Your task to perform on an android device: check the backup settings in the google photos Image 0: 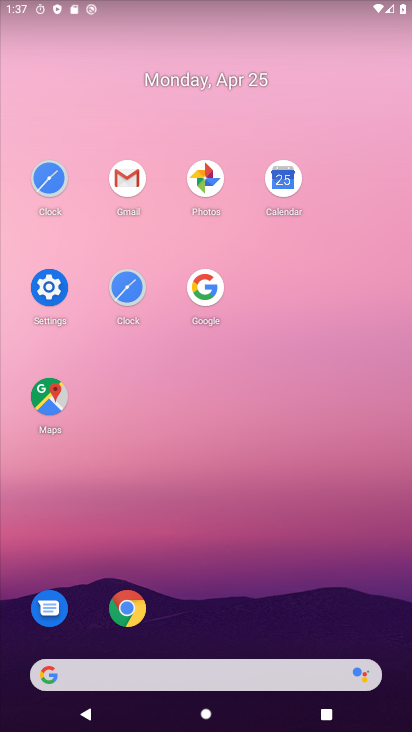
Step 0: click (204, 175)
Your task to perform on an android device: check the backup settings in the google photos Image 1: 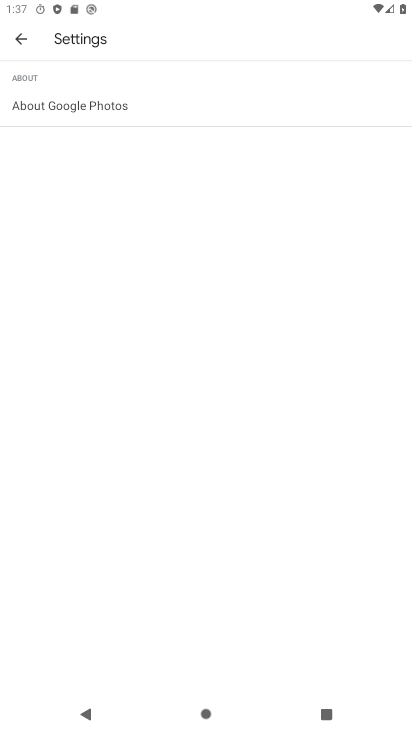
Step 1: click (24, 42)
Your task to perform on an android device: check the backup settings in the google photos Image 2: 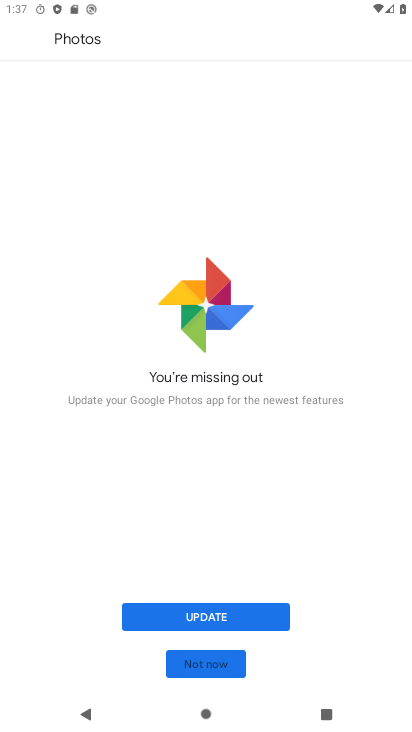
Step 2: click (24, 42)
Your task to perform on an android device: check the backup settings in the google photos Image 3: 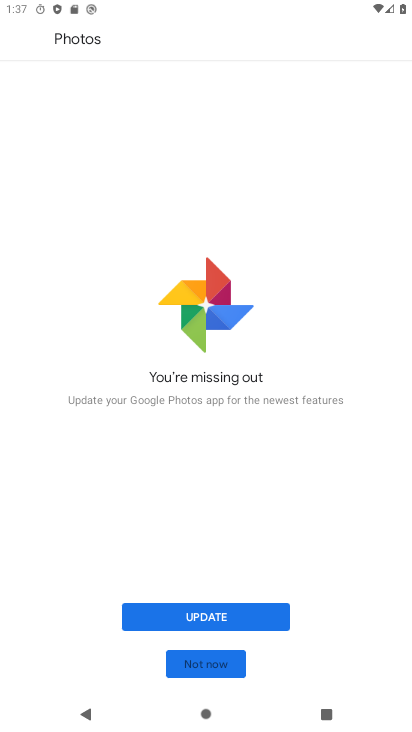
Step 3: click (230, 621)
Your task to perform on an android device: check the backup settings in the google photos Image 4: 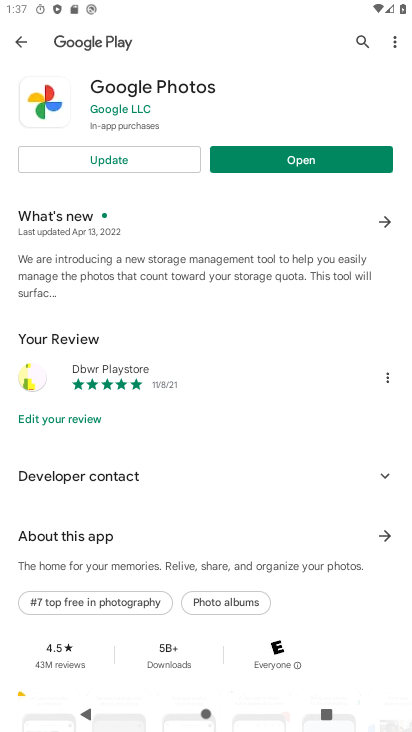
Step 4: click (125, 157)
Your task to perform on an android device: check the backup settings in the google photos Image 5: 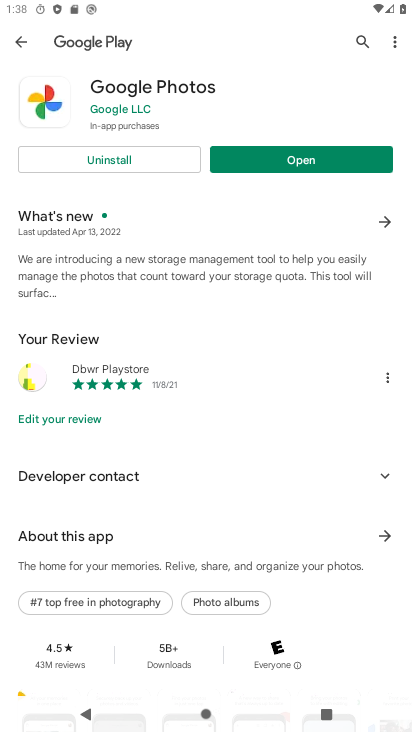
Step 5: click (255, 160)
Your task to perform on an android device: check the backup settings in the google photos Image 6: 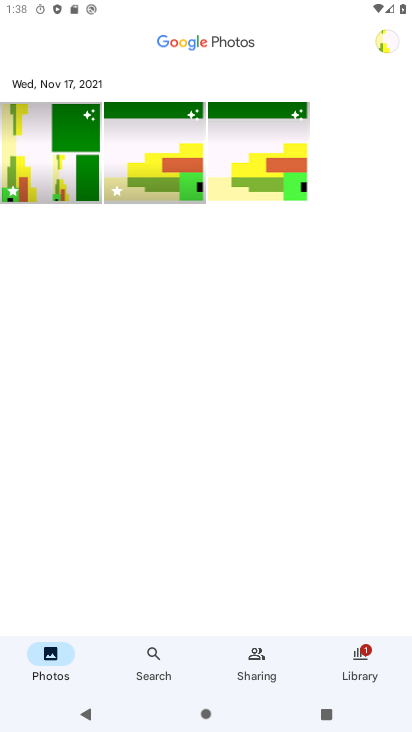
Step 6: click (384, 44)
Your task to perform on an android device: check the backup settings in the google photos Image 7: 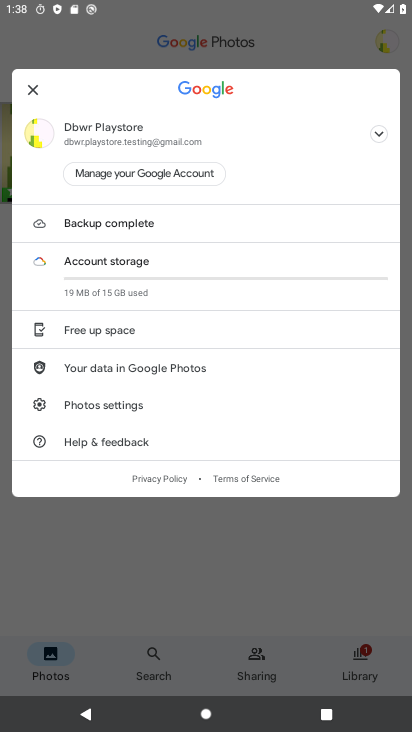
Step 7: click (137, 404)
Your task to perform on an android device: check the backup settings in the google photos Image 8: 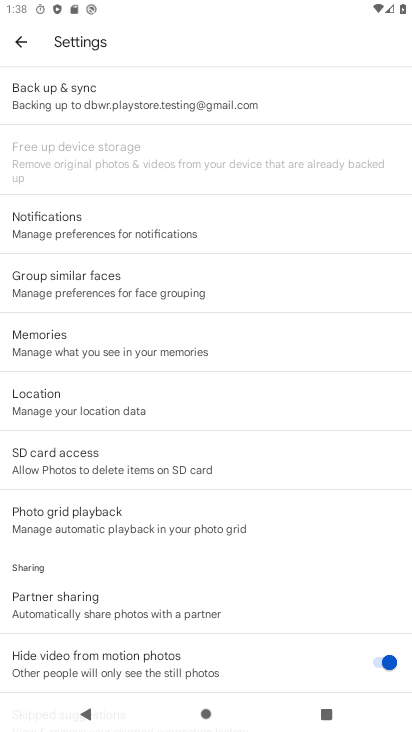
Step 8: click (200, 101)
Your task to perform on an android device: check the backup settings in the google photos Image 9: 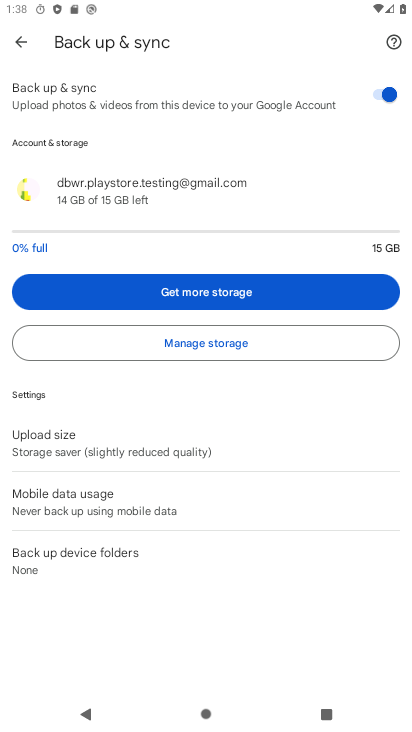
Step 9: task complete